Your task to perform on an android device: turn on the 12-hour format for clock Image 0: 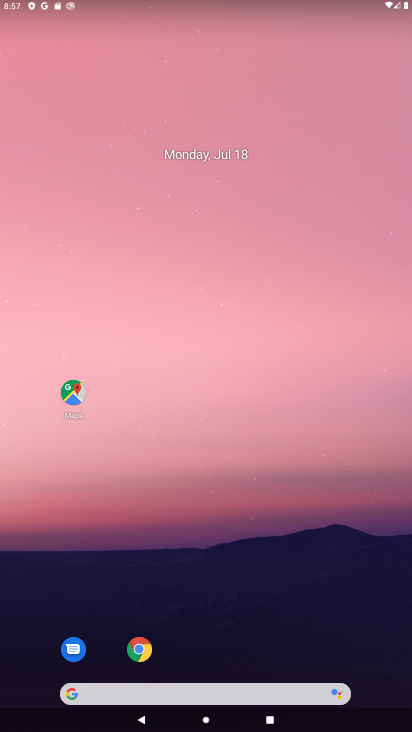
Step 0: drag from (294, 682) to (321, 37)
Your task to perform on an android device: turn on the 12-hour format for clock Image 1: 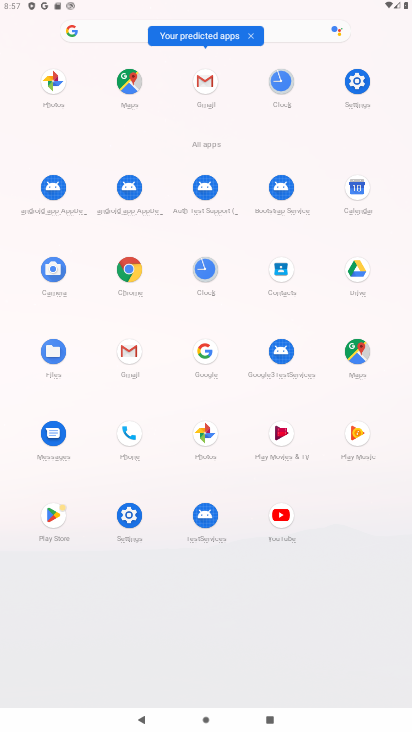
Step 1: click (208, 262)
Your task to perform on an android device: turn on the 12-hour format for clock Image 2: 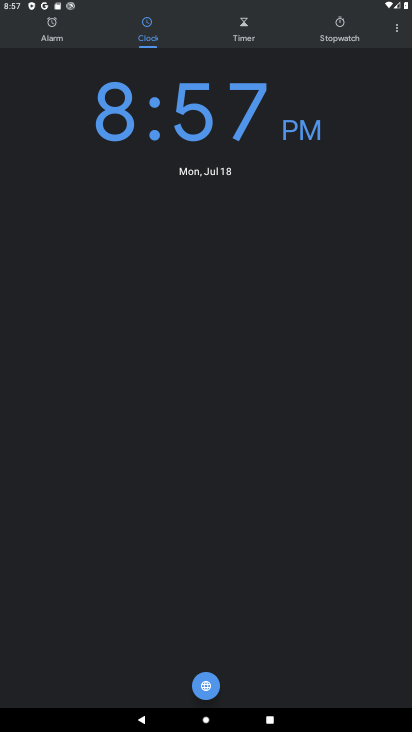
Step 2: click (398, 24)
Your task to perform on an android device: turn on the 12-hour format for clock Image 3: 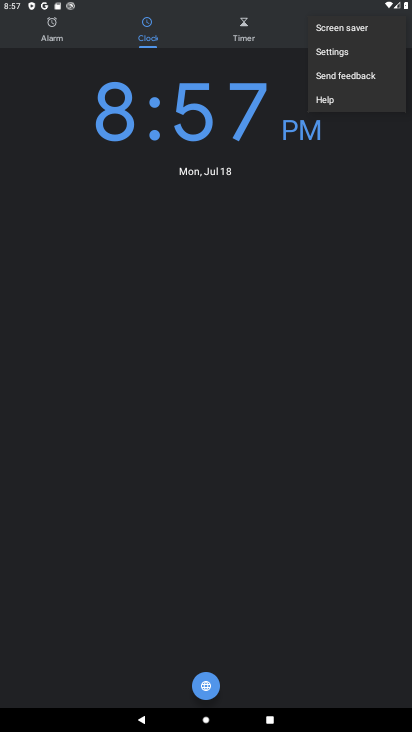
Step 3: click (350, 51)
Your task to perform on an android device: turn on the 12-hour format for clock Image 4: 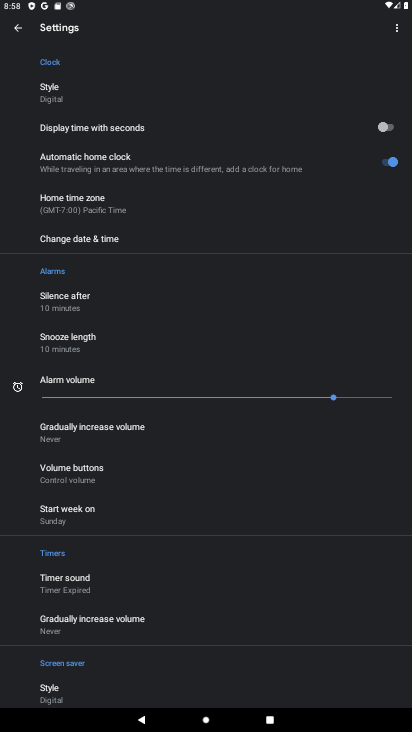
Step 4: click (166, 240)
Your task to perform on an android device: turn on the 12-hour format for clock Image 5: 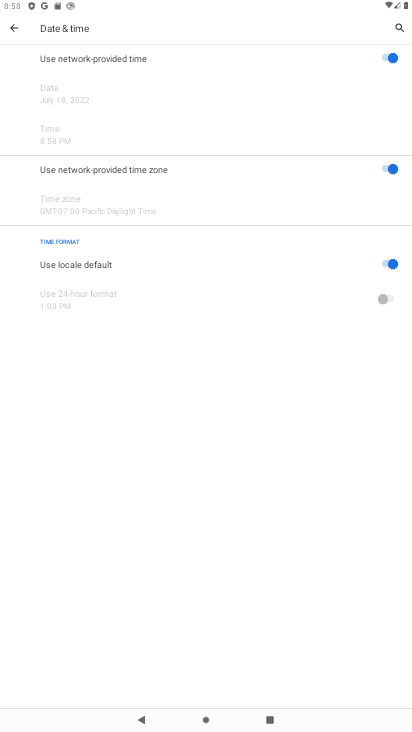
Step 5: click (382, 265)
Your task to perform on an android device: turn on the 12-hour format for clock Image 6: 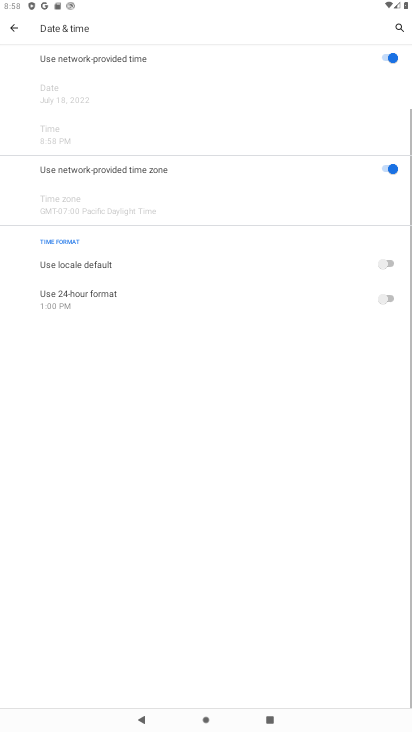
Step 6: click (391, 300)
Your task to perform on an android device: turn on the 12-hour format for clock Image 7: 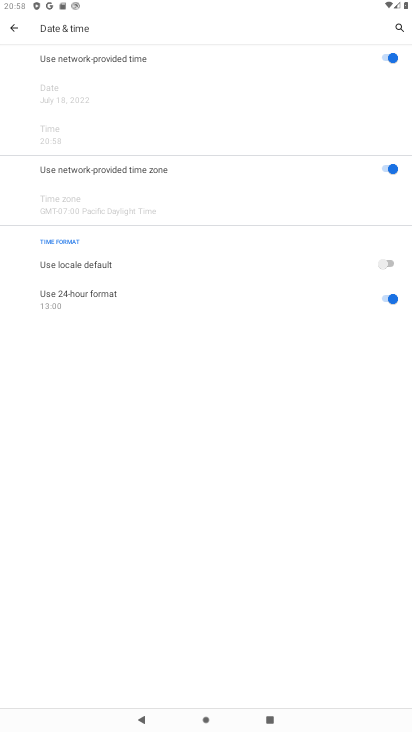
Step 7: click (390, 298)
Your task to perform on an android device: turn on the 12-hour format for clock Image 8: 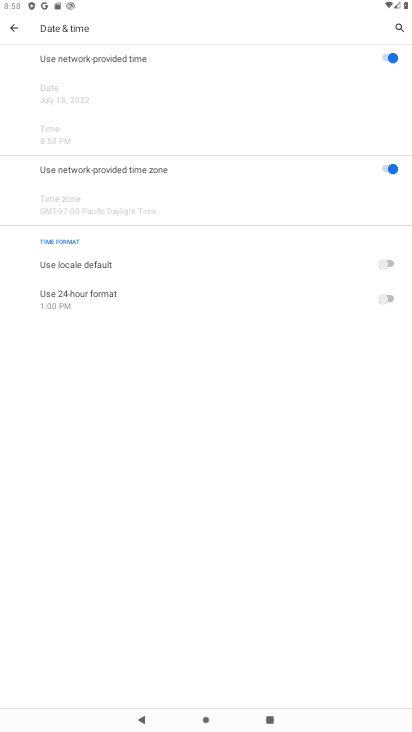
Step 8: task complete